Your task to perform on an android device: toggle notifications settings in the gmail app Image 0: 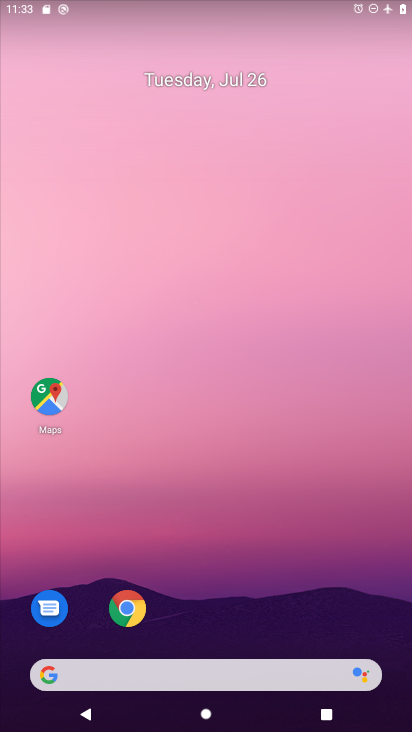
Step 0: drag from (296, 623) to (286, 85)
Your task to perform on an android device: toggle notifications settings in the gmail app Image 1: 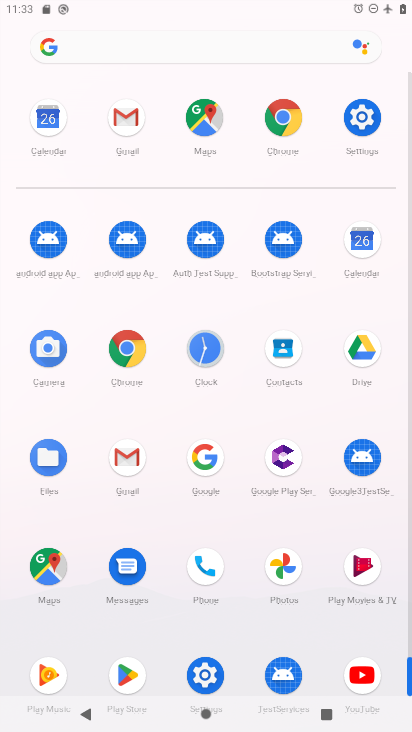
Step 1: click (138, 112)
Your task to perform on an android device: toggle notifications settings in the gmail app Image 2: 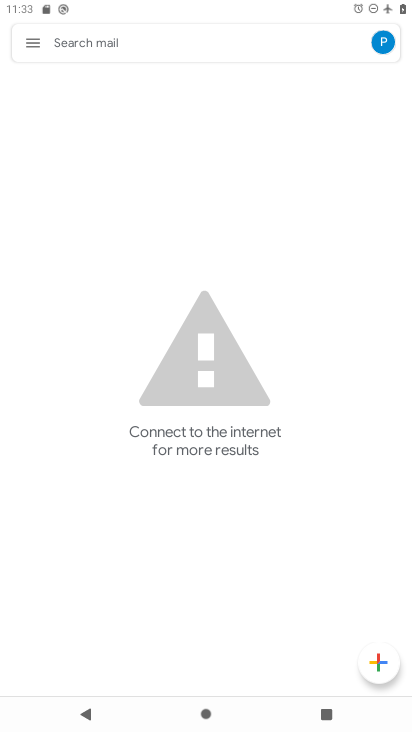
Step 2: click (32, 48)
Your task to perform on an android device: toggle notifications settings in the gmail app Image 3: 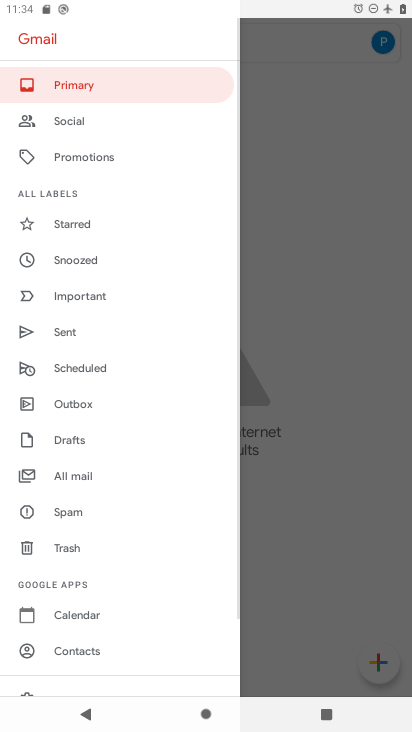
Step 3: drag from (109, 627) to (165, 254)
Your task to perform on an android device: toggle notifications settings in the gmail app Image 4: 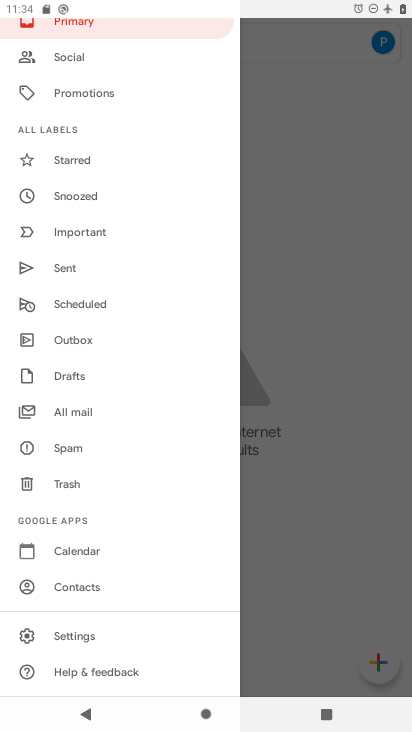
Step 4: click (83, 635)
Your task to perform on an android device: toggle notifications settings in the gmail app Image 5: 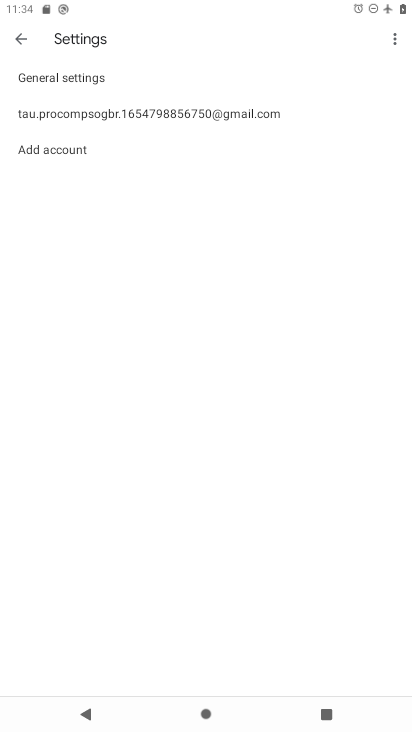
Step 5: click (224, 111)
Your task to perform on an android device: toggle notifications settings in the gmail app Image 6: 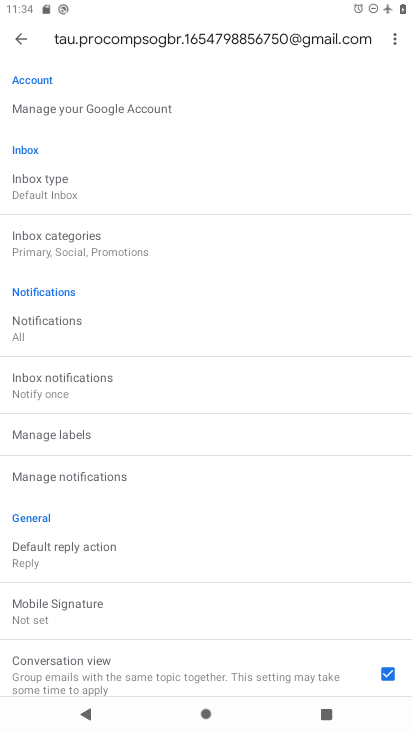
Step 6: click (89, 472)
Your task to perform on an android device: toggle notifications settings in the gmail app Image 7: 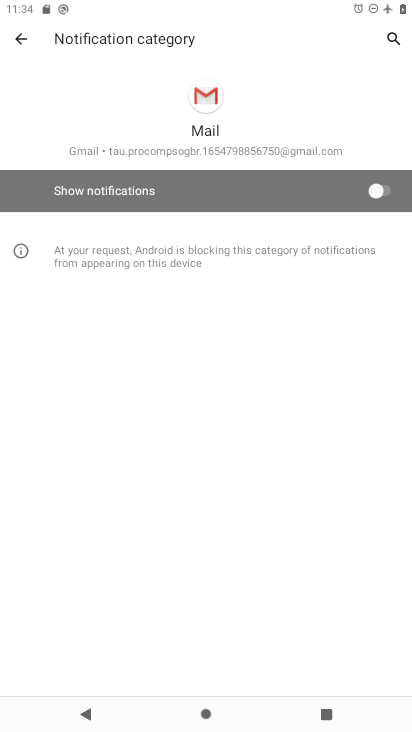
Step 7: click (380, 185)
Your task to perform on an android device: toggle notifications settings in the gmail app Image 8: 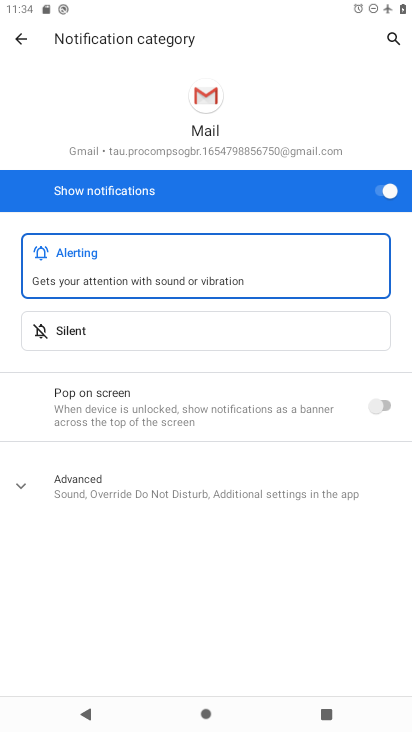
Step 8: task complete